Your task to perform on an android device: turn vacation reply on in the gmail app Image 0: 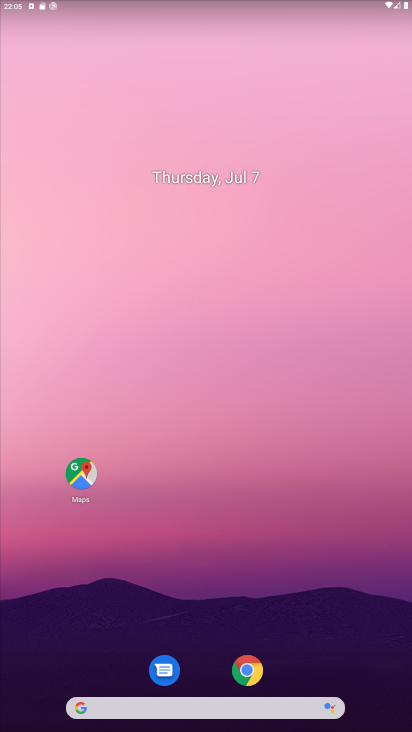
Step 0: drag from (13, 701) to (282, 153)
Your task to perform on an android device: turn vacation reply on in the gmail app Image 1: 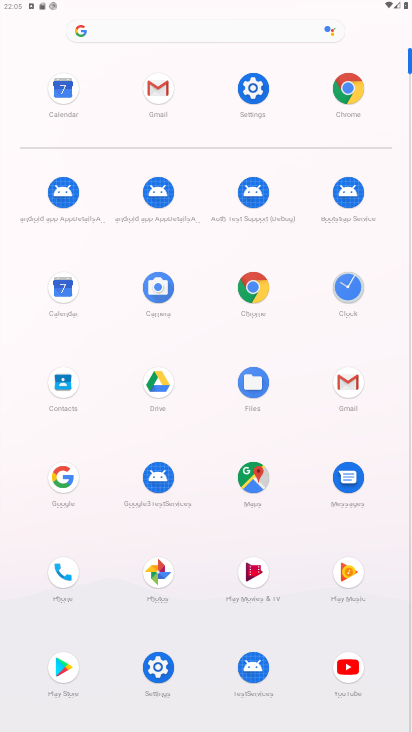
Step 1: click (354, 368)
Your task to perform on an android device: turn vacation reply on in the gmail app Image 2: 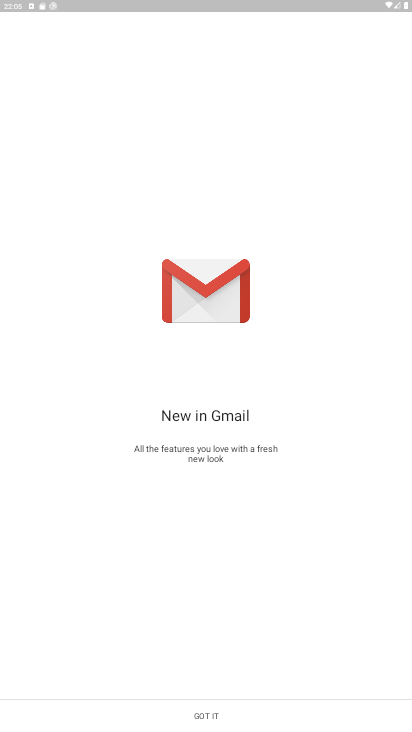
Step 2: click (218, 703)
Your task to perform on an android device: turn vacation reply on in the gmail app Image 3: 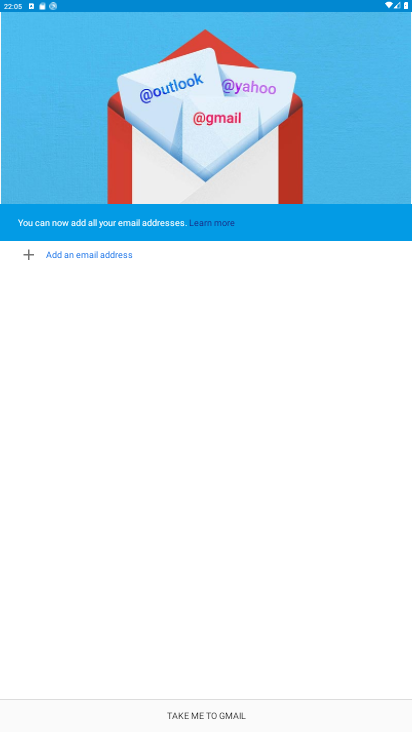
Step 3: task complete